Your task to perform on an android device: change the clock display to show seconds Image 0: 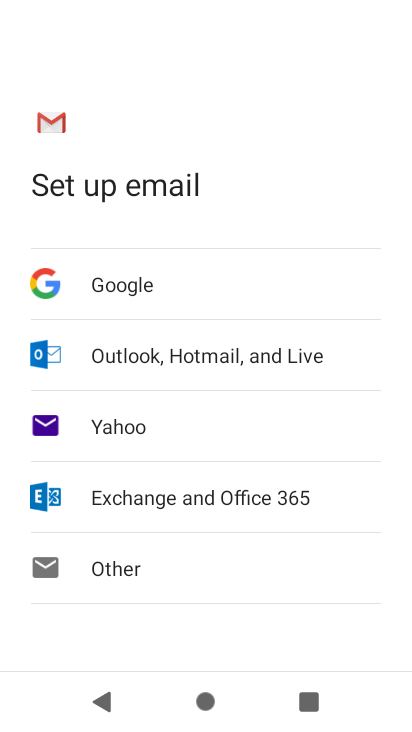
Step 0: press home button
Your task to perform on an android device: change the clock display to show seconds Image 1: 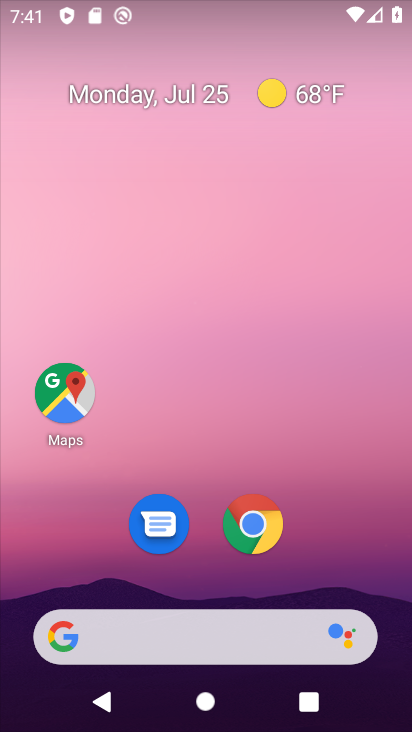
Step 1: drag from (314, 547) to (297, 79)
Your task to perform on an android device: change the clock display to show seconds Image 2: 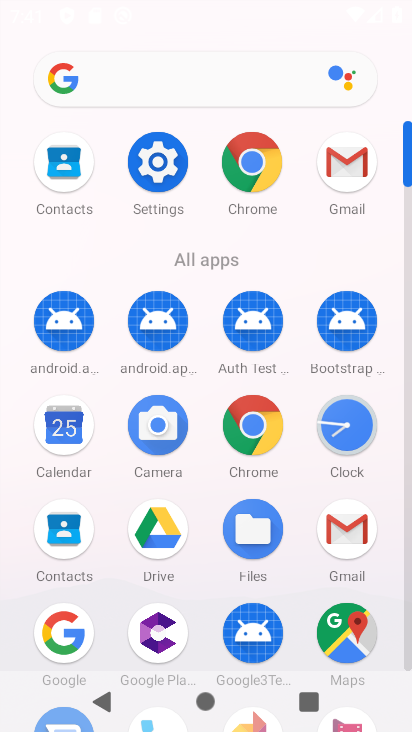
Step 2: click (355, 421)
Your task to perform on an android device: change the clock display to show seconds Image 3: 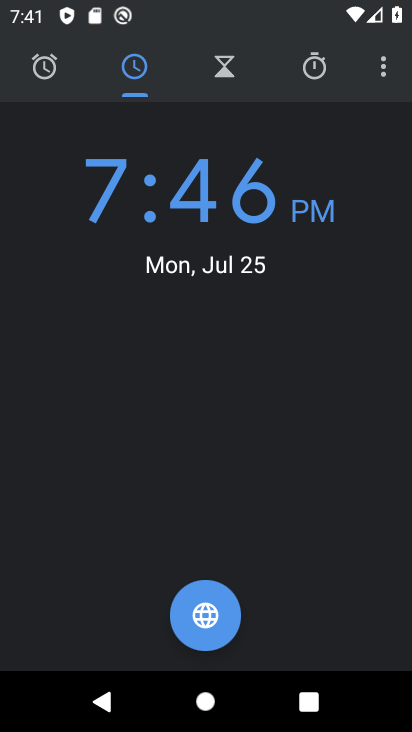
Step 3: click (385, 73)
Your task to perform on an android device: change the clock display to show seconds Image 4: 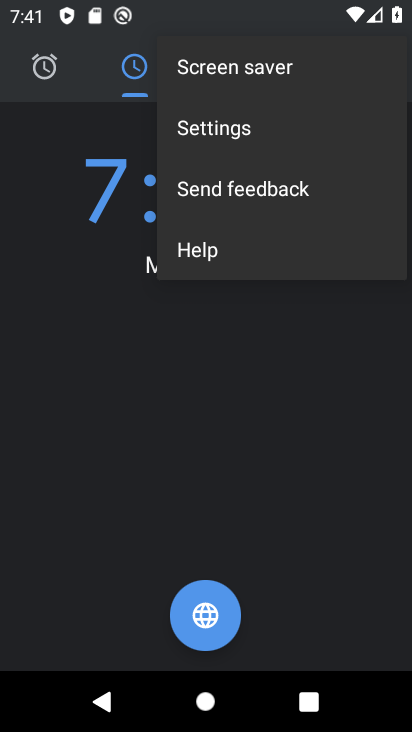
Step 4: click (285, 131)
Your task to perform on an android device: change the clock display to show seconds Image 5: 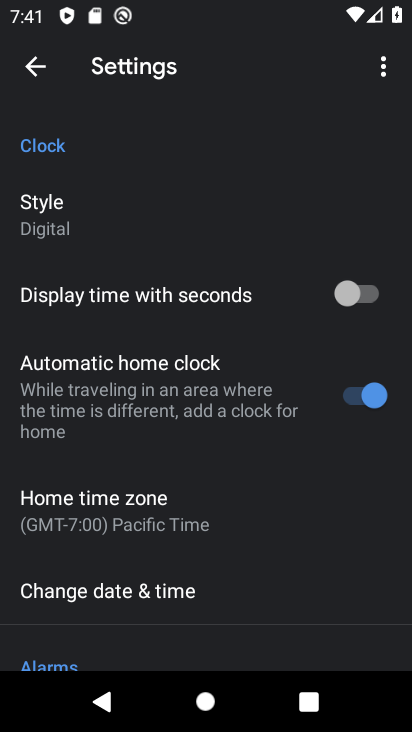
Step 5: click (356, 295)
Your task to perform on an android device: change the clock display to show seconds Image 6: 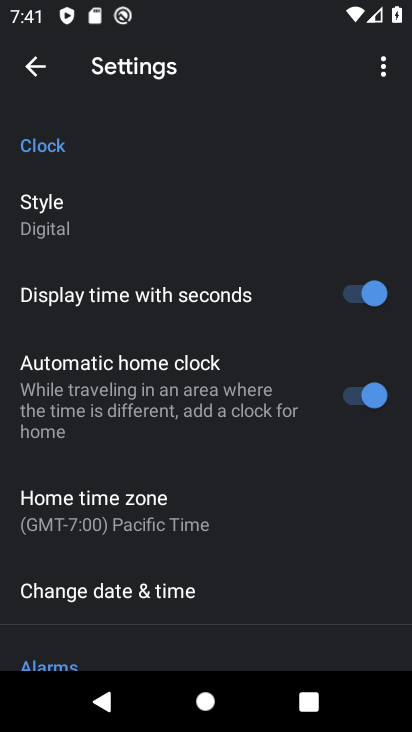
Step 6: click (41, 70)
Your task to perform on an android device: change the clock display to show seconds Image 7: 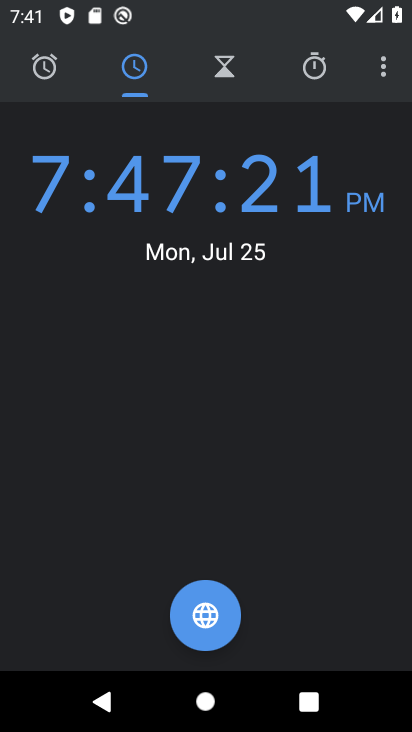
Step 7: task complete